Your task to perform on an android device: Go to Yahoo.com Image 0: 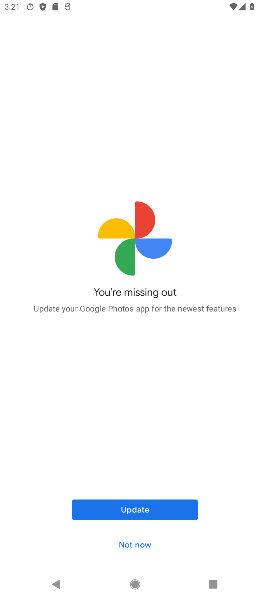
Step 0: press home button
Your task to perform on an android device: Go to Yahoo.com Image 1: 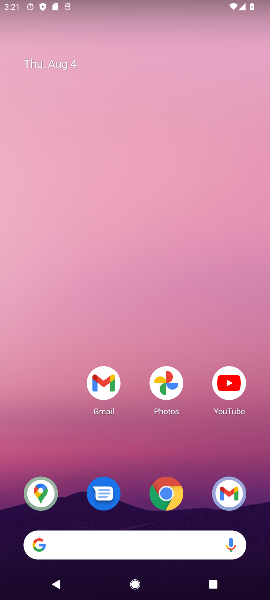
Step 1: click (81, 552)
Your task to perform on an android device: Go to Yahoo.com Image 2: 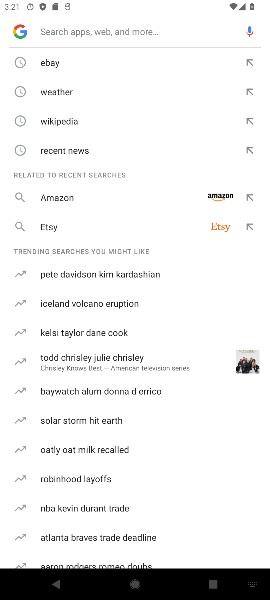
Step 2: type "Yahoo.com"
Your task to perform on an android device: Go to Yahoo.com Image 3: 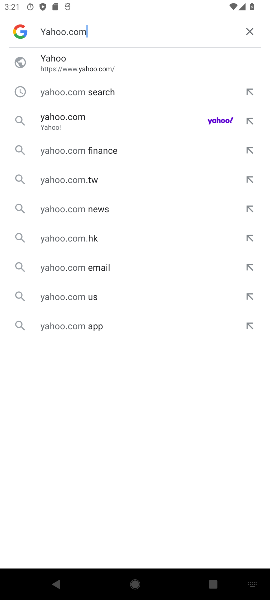
Step 3: type ""
Your task to perform on an android device: Go to Yahoo.com Image 4: 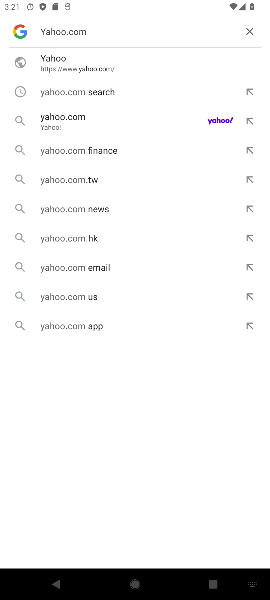
Step 4: type ""
Your task to perform on an android device: Go to Yahoo.com Image 5: 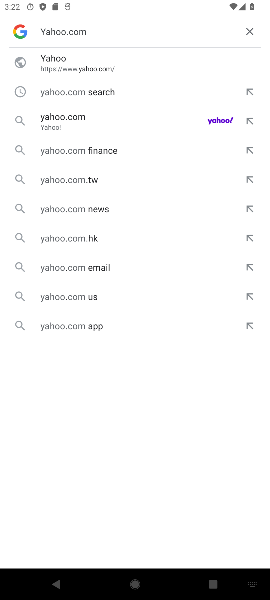
Step 5: click (44, 119)
Your task to perform on an android device: Go to Yahoo.com Image 6: 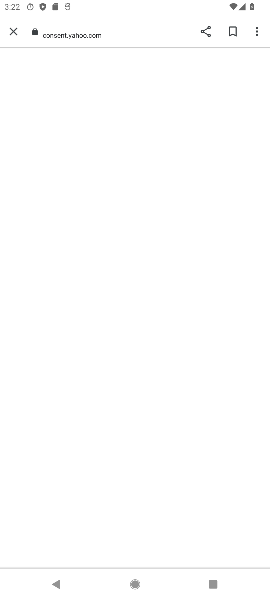
Step 6: task complete